Your task to perform on an android device: set the timer Image 0: 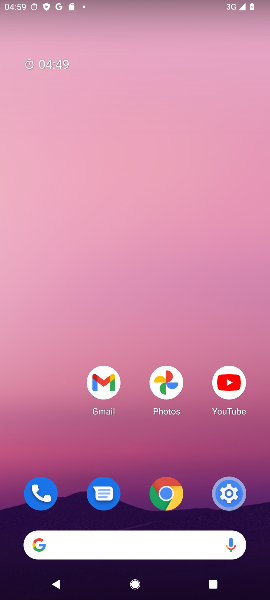
Step 0: press home button
Your task to perform on an android device: set the timer Image 1: 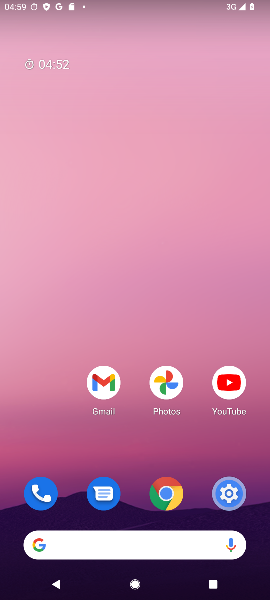
Step 1: drag from (52, 440) to (97, 114)
Your task to perform on an android device: set the timer Image 2: 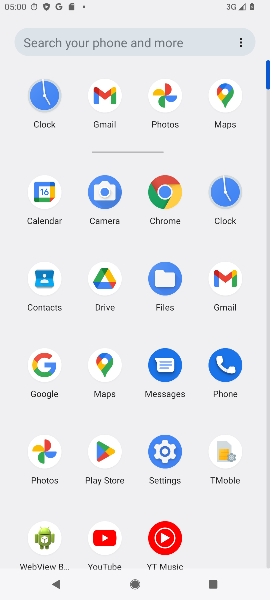
Step 2: click (232, 191)
Your task to perform on an android device: set the timer Image 3: 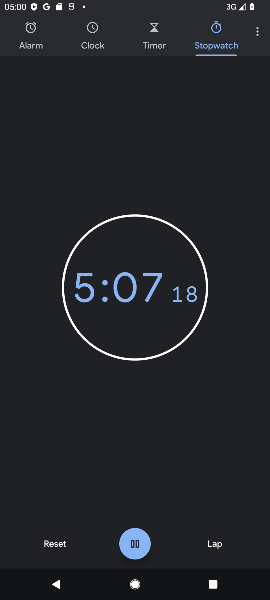
Step 3: click (150, 34)
Your task to perform on an android device: set the timer Image 4: 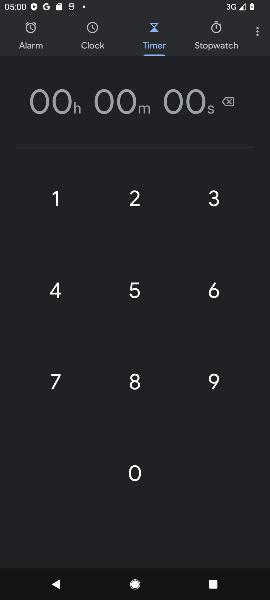
Step 4: click (133, 297)
Your task to perform on an android device: set the timer Image 5: 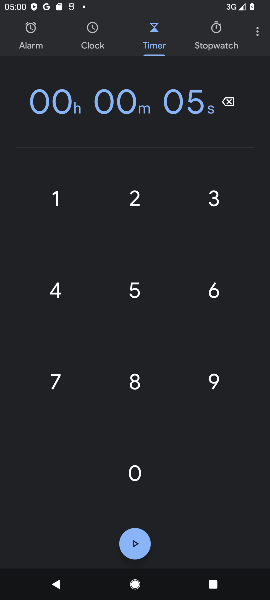
Step 5: task complete